Your task to perform on an android device: Open Yahoo.com Image 0: 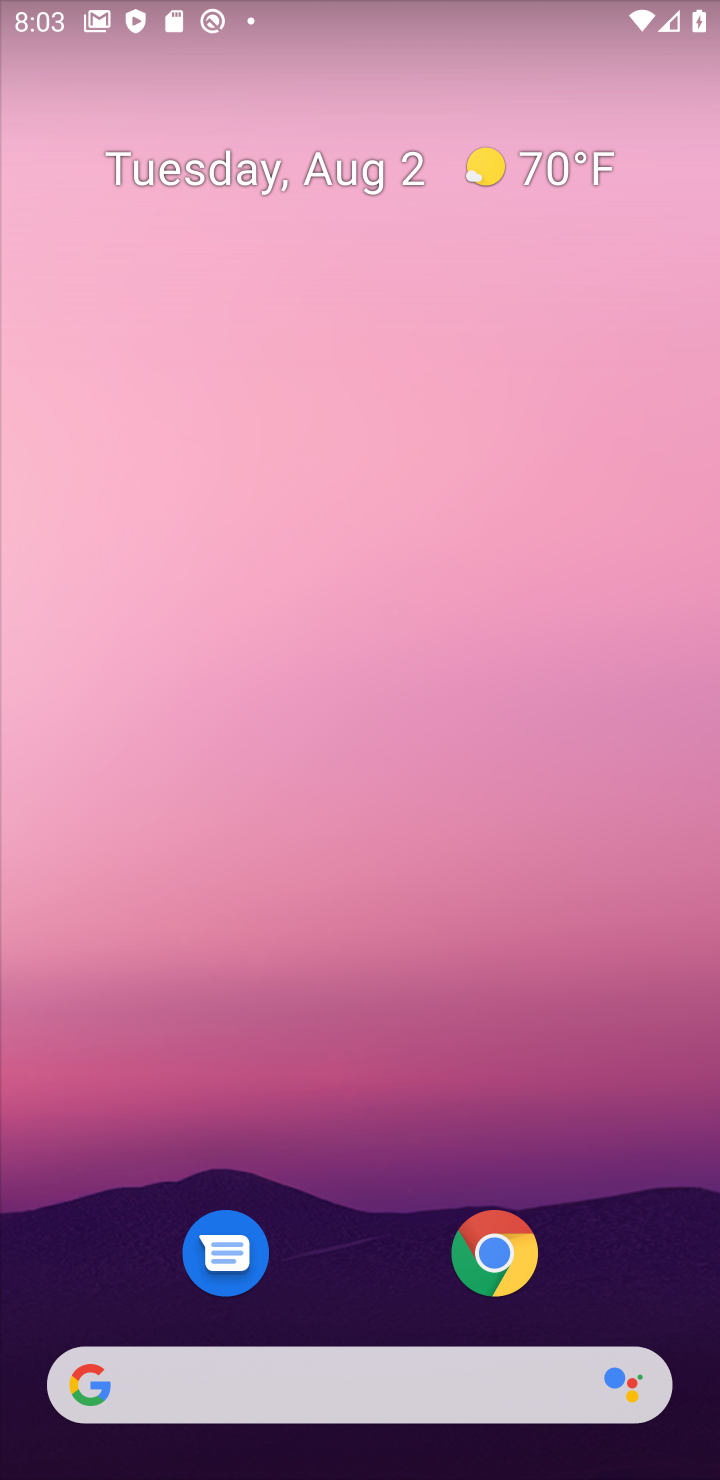
Step 0: click (499, 1249)
Your task to perform on an android device: Open Yahoo.com Image 1: 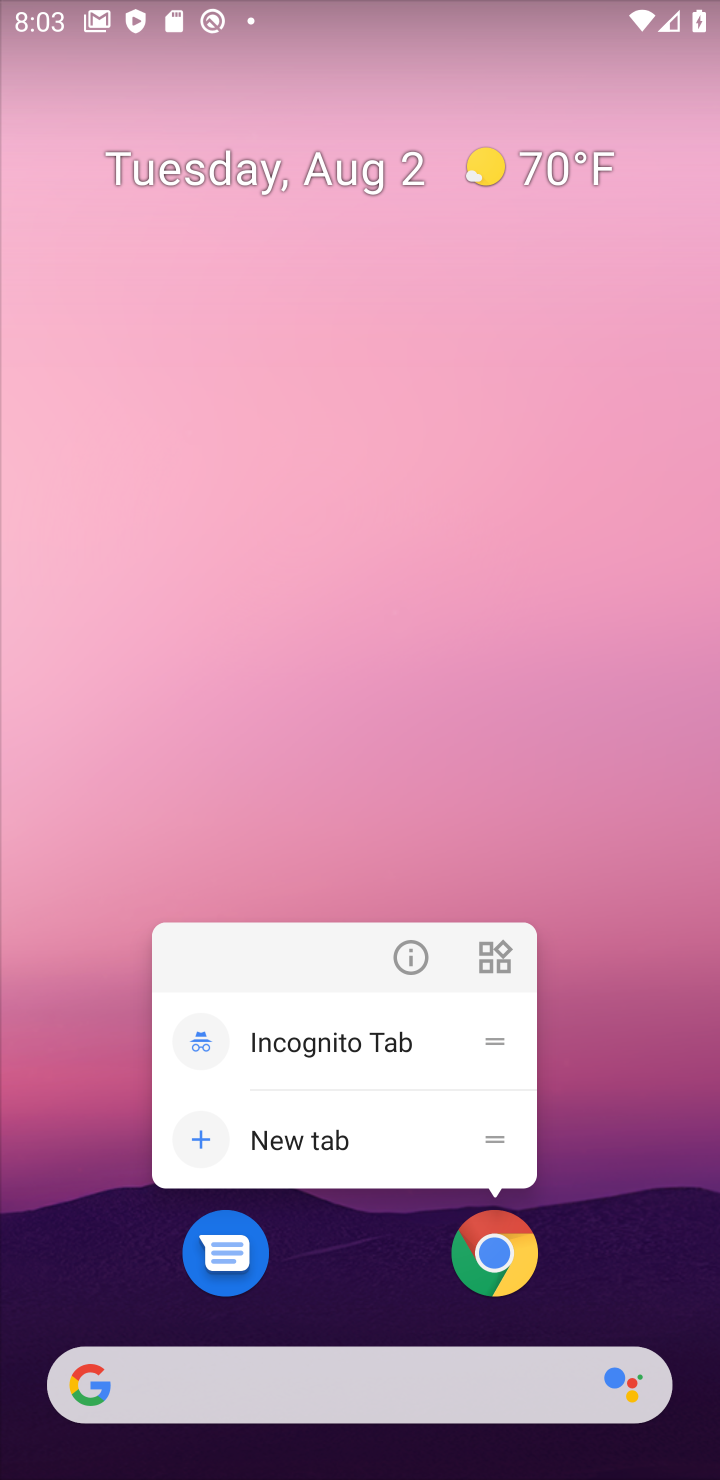
Step 1: click (499, 1249)
Your task to perform on an android device: Open Yahoo.com Image 2: 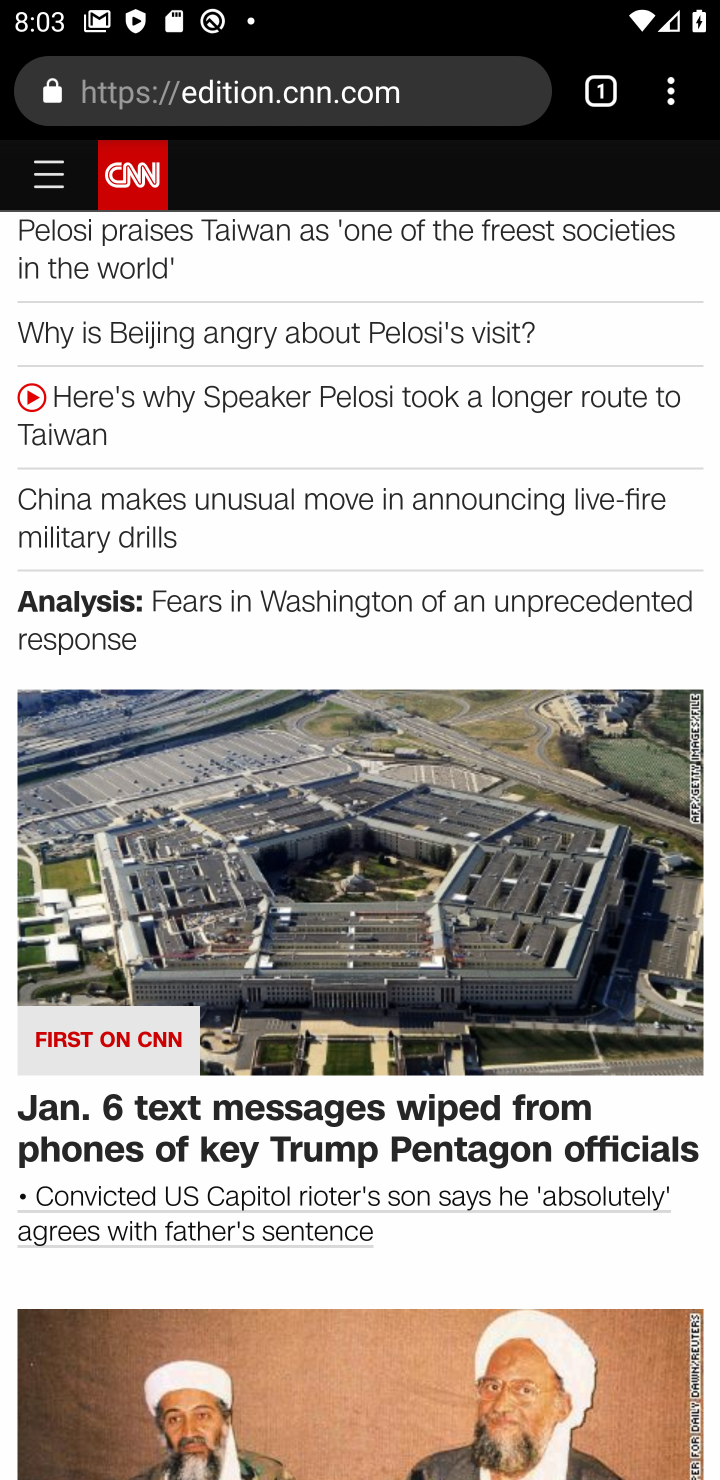
Step 2: drag from (677, 94) to (367, 294)
Your task to perform on an android device: Open Yahoo.com Image 3: 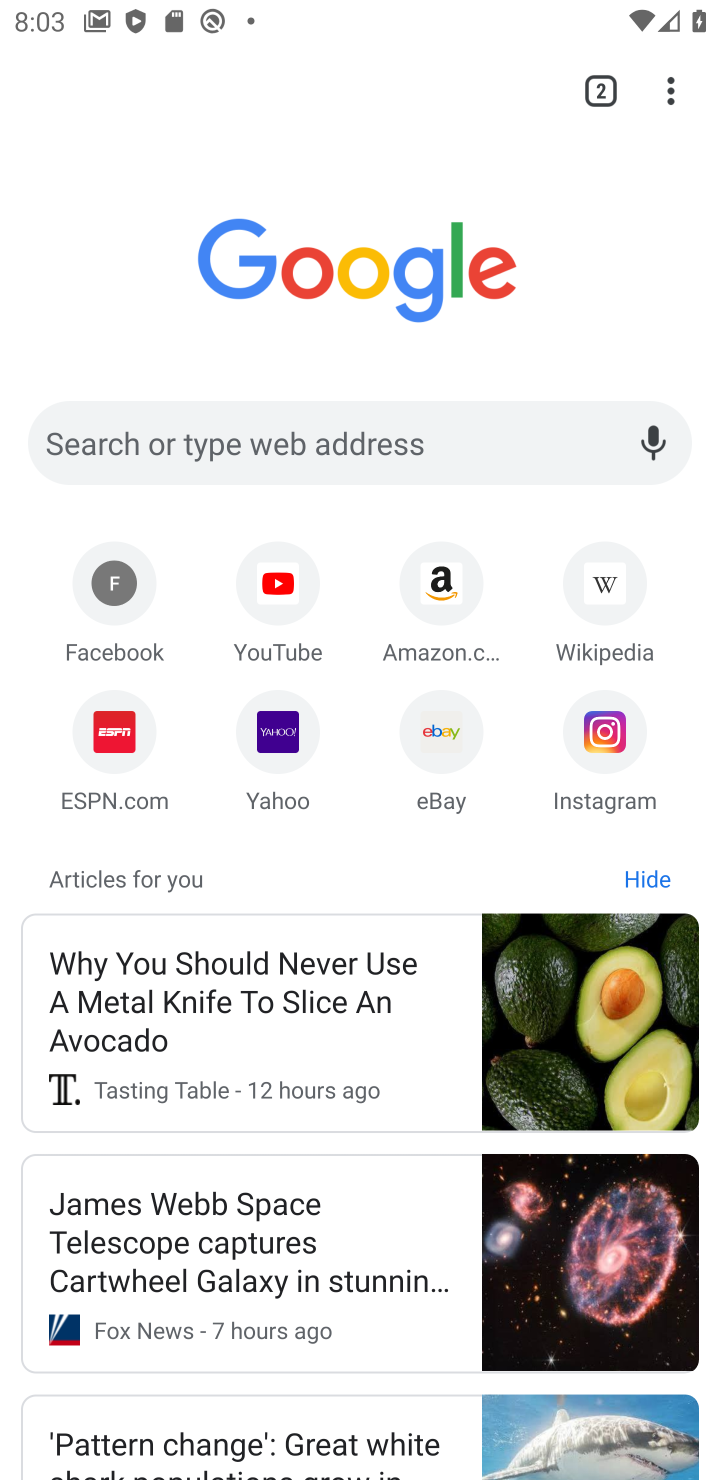
Step 3: click (284, 747)
Your task to perform on an android device: Open Yahoo.com Image 4: 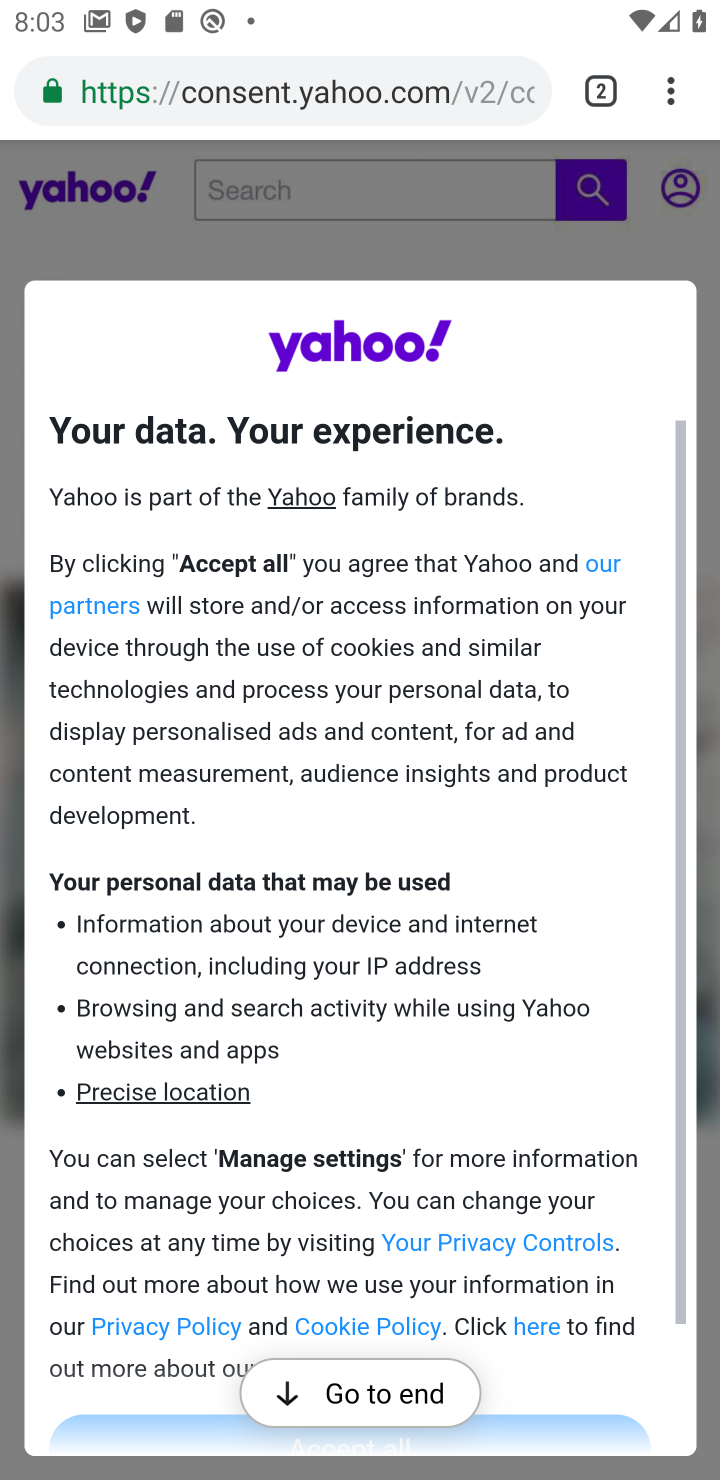
Step 4: drag from (443, 1108) to (610, 404)
Your task to perform on an android device: Open Yahoo.com Image 5: 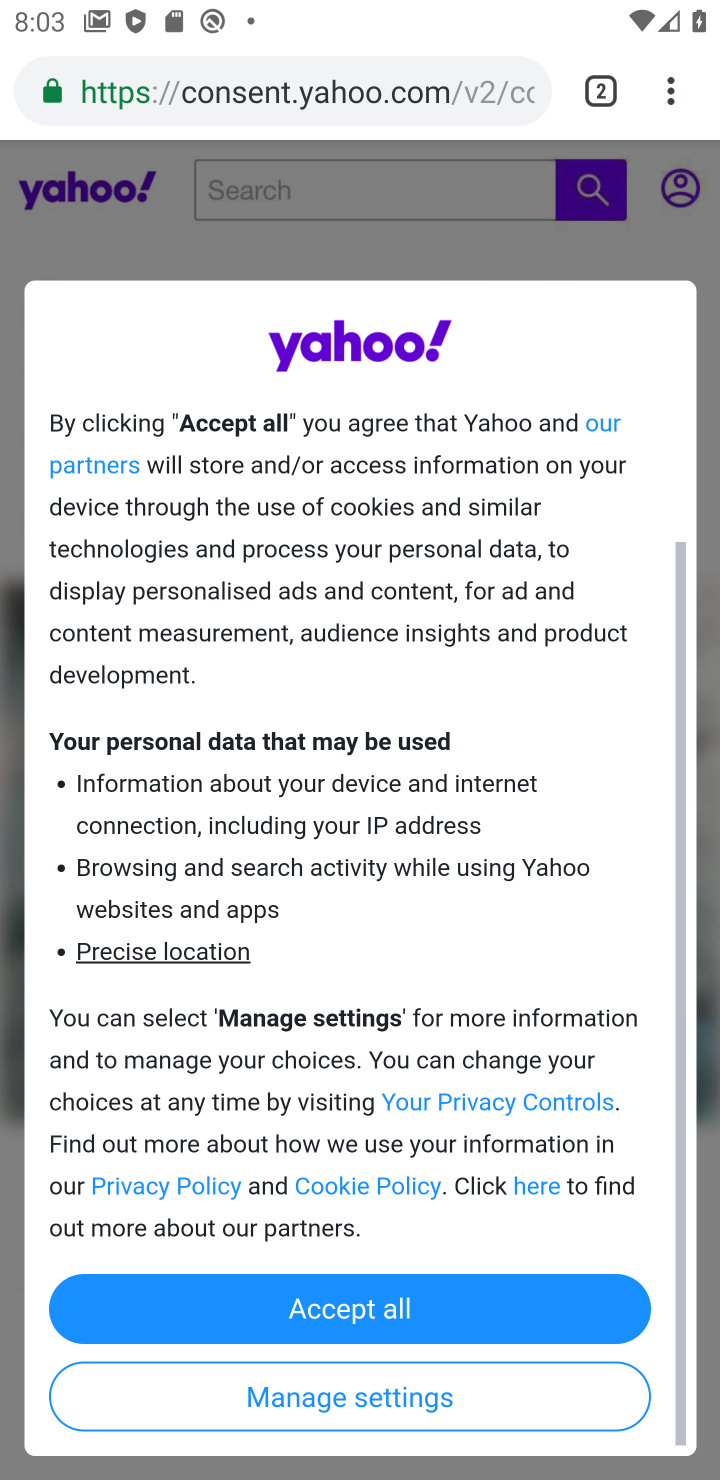
Step 5: click (380, 1296)
Your task to perform on an android device: Open Yahoo.com Image 6: 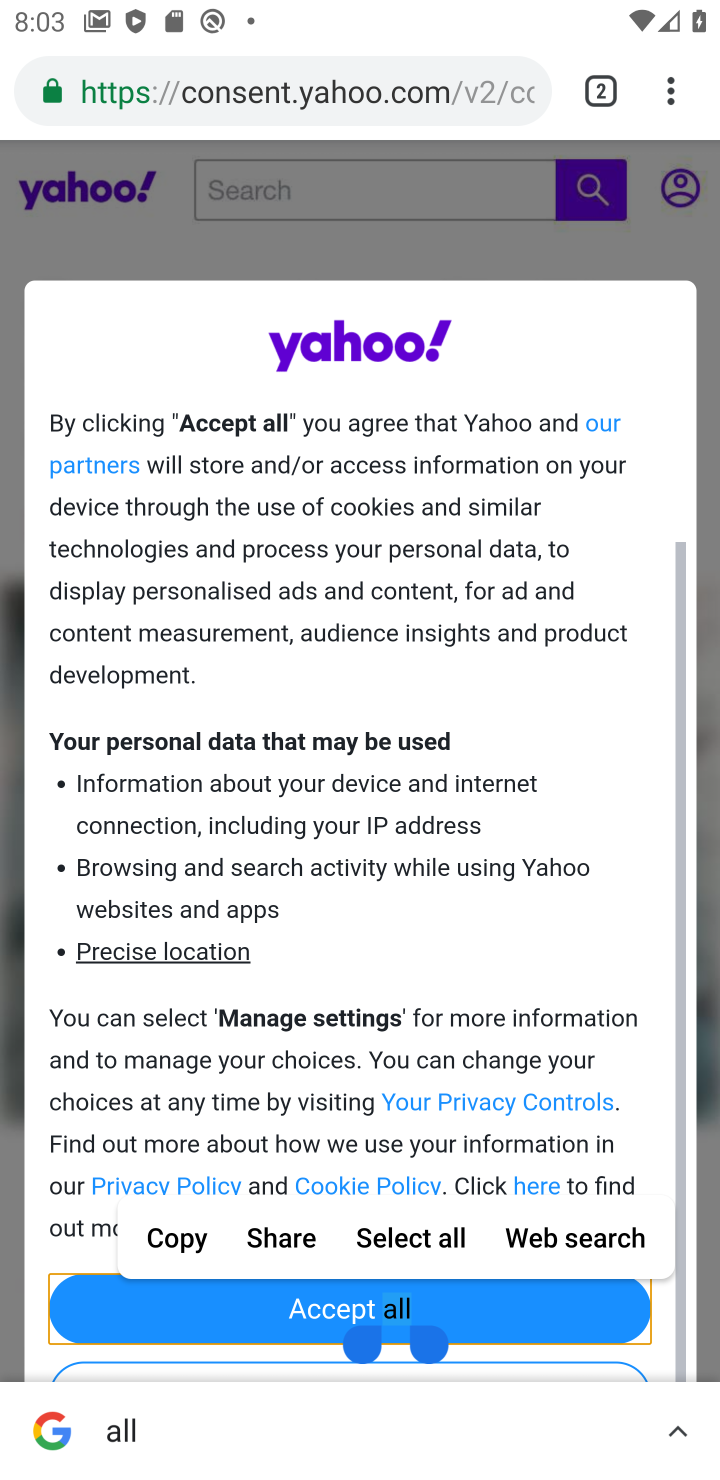
Step 6: click (376, 1301)
Your task to perform on an android device: Open Yahoo.com Image 7: 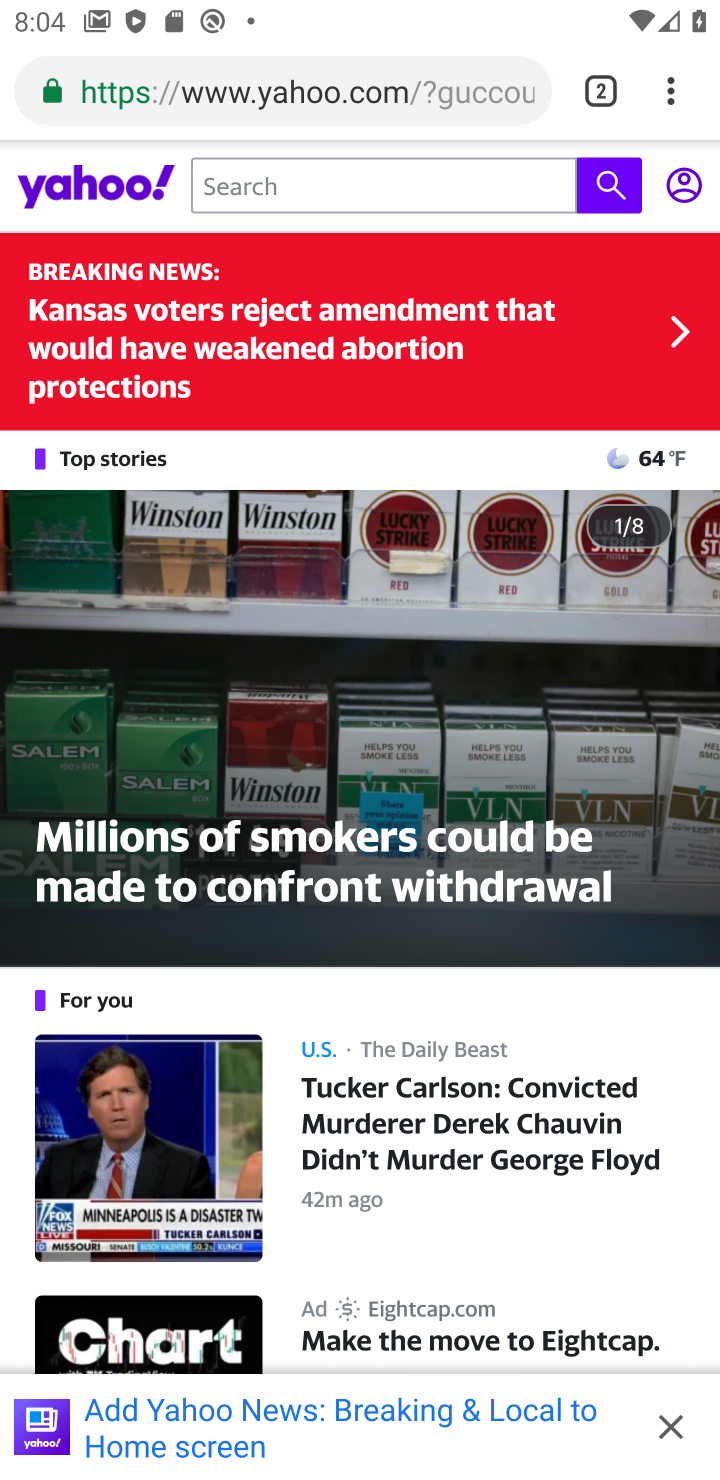
Step 7: task complete